Your task to perform on an android device: Open Yahoo.com Image 0: 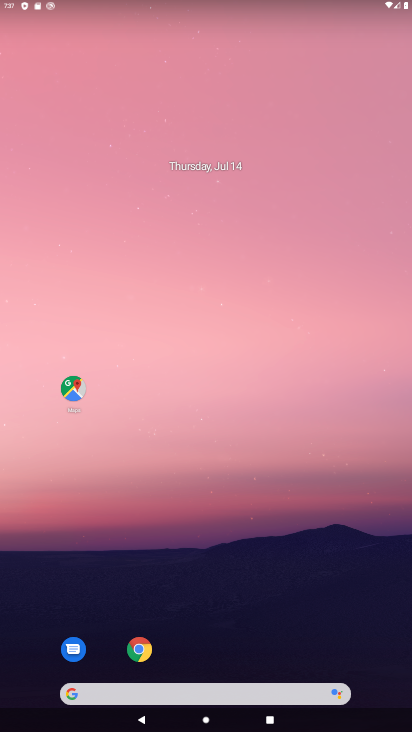
Step 0: click (142, 653)
Your task to perform on an android device: Open Yahoo.com Image 1: 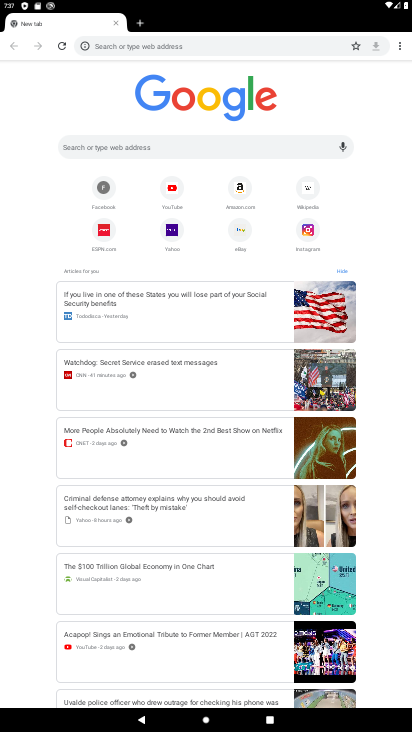
Step 1: click (172, 236)
Your task to perform on an android device: Open Yahoo.com Image 2: 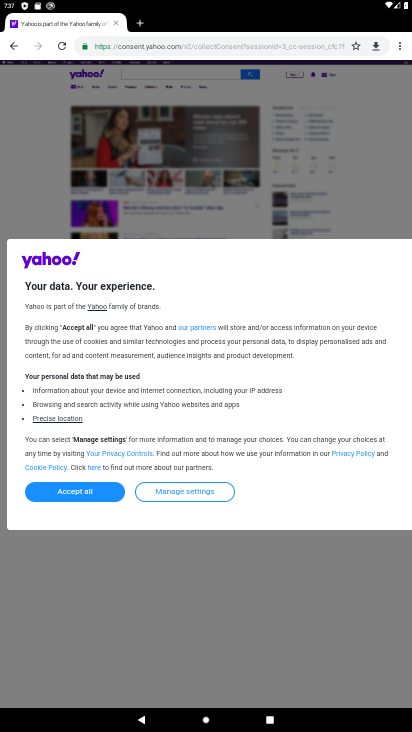
Step 2: task complete